Your task to perform on an android device: remove spam from my inbox in the gmail app Image 0: 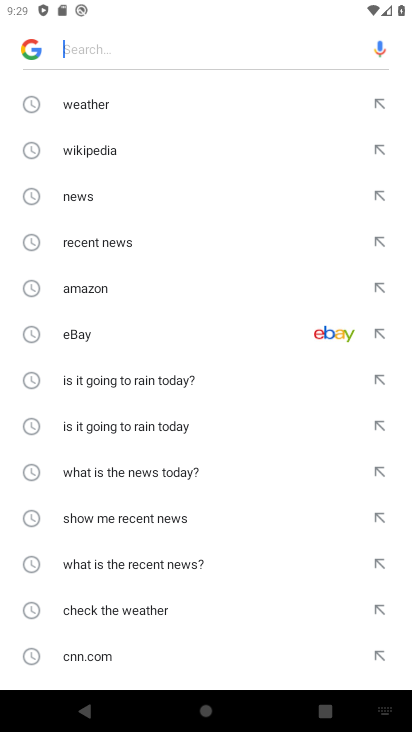
Step 0: press home button
Your task to perform on an android device: remove spam from my inbox in the gmail app Image 1: 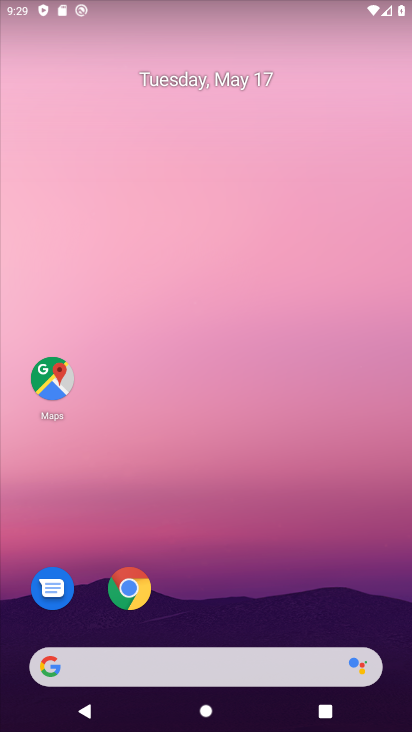
Step 1: drag from (228, 726) to (227, 160)
Your task to perform on an android device: remove spam from my inbox in the gmail app Image 2: 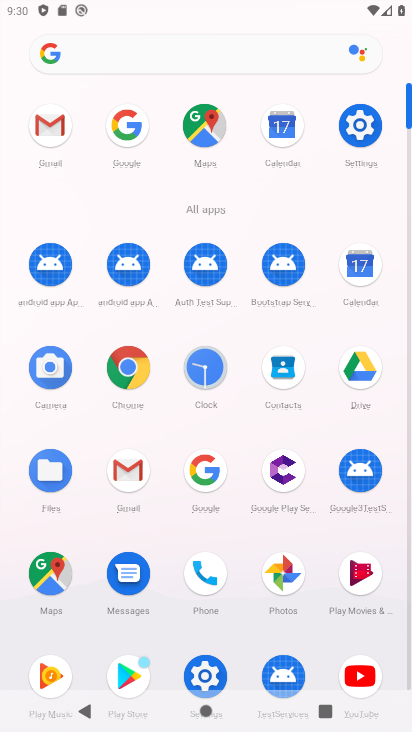
Step 2: click (129, 470)
Your task to perform on an android device: remove spam from my inbox in the gmail app Image 3: 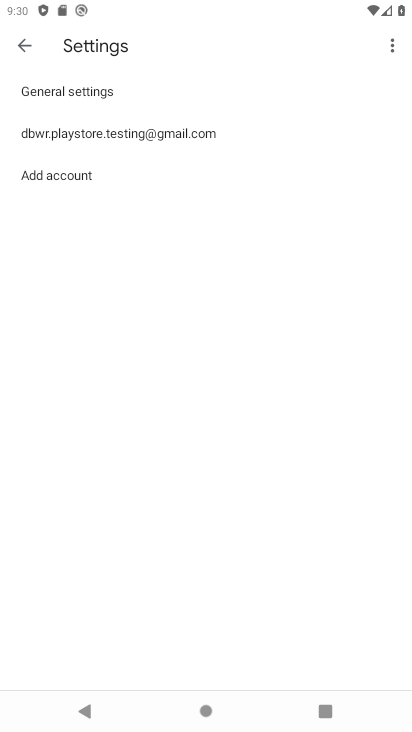
Step 3: click (25, 50)
Your task to perform on an android device: remove spam from my inbox in the gmail app Image 4: 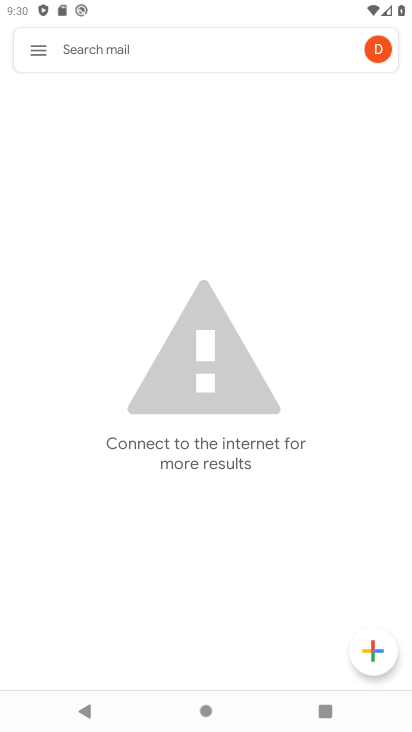
Step 4: click (32, 51)
Your task to perform on an android device: remove spam from my inbox in the gmail app Image 5: 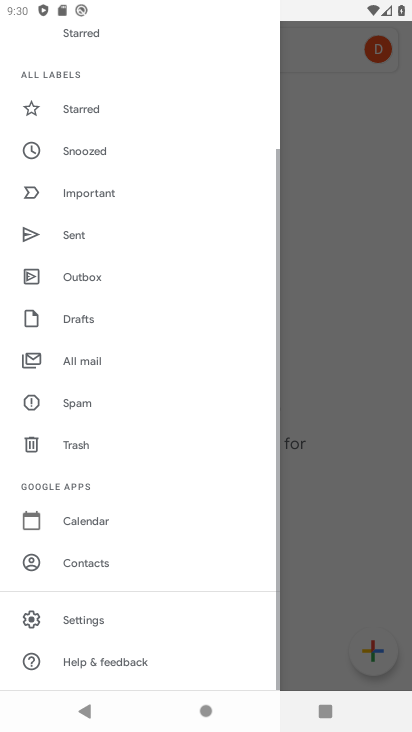
Step 5: drag from (106, 85) to (106, 447)
Your task to perform on an android device: remove spam from my inbox in the gmail app Image 6: 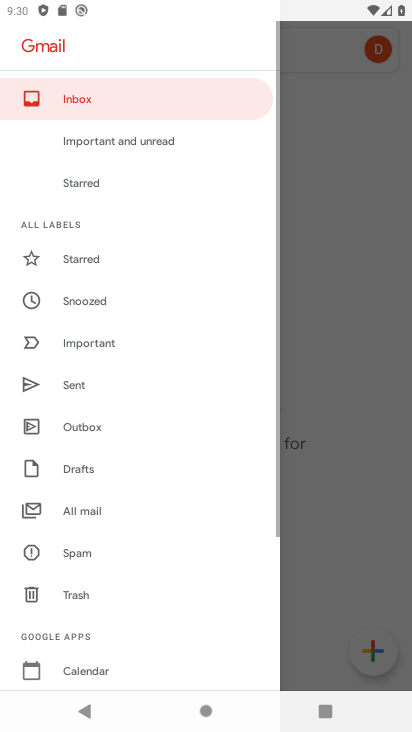
Step 6: click (82, 102)
Your task to perform on an android device: remove spam from my inbox in the gmail app Image 7: 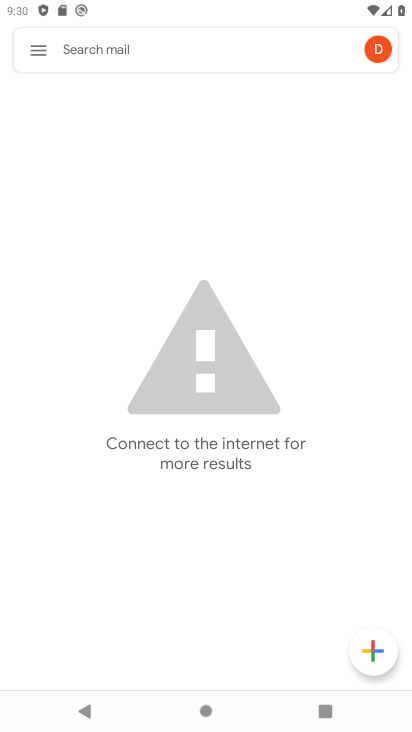
Step 7: task complete